Your task to perform on an android device: search for starred emails in the gmail app Image 0: 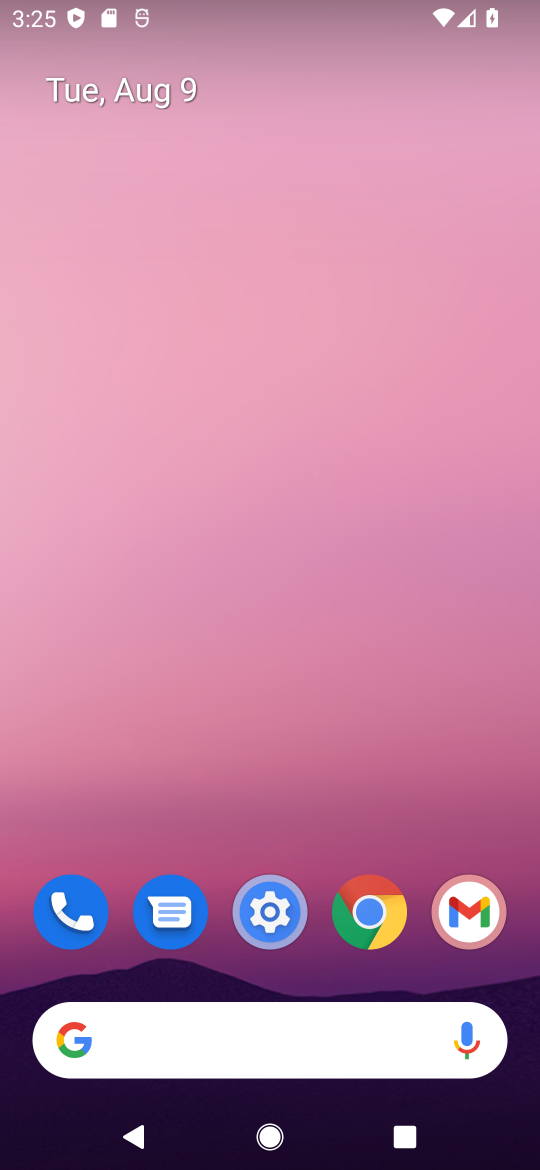
Step 0: click (470, 908)
Your task to perform on an android device: search for starred emails in the gmail app Image 1: 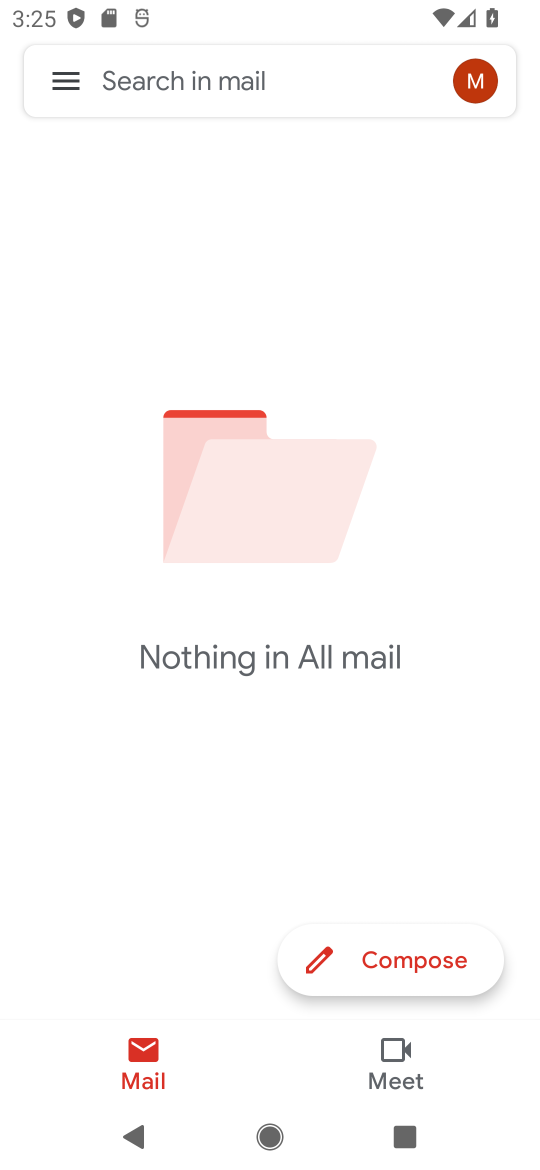
Step 1: click (62, 68)
Your task to perform on an android device: search for starred emails in the gmail app Image 2: 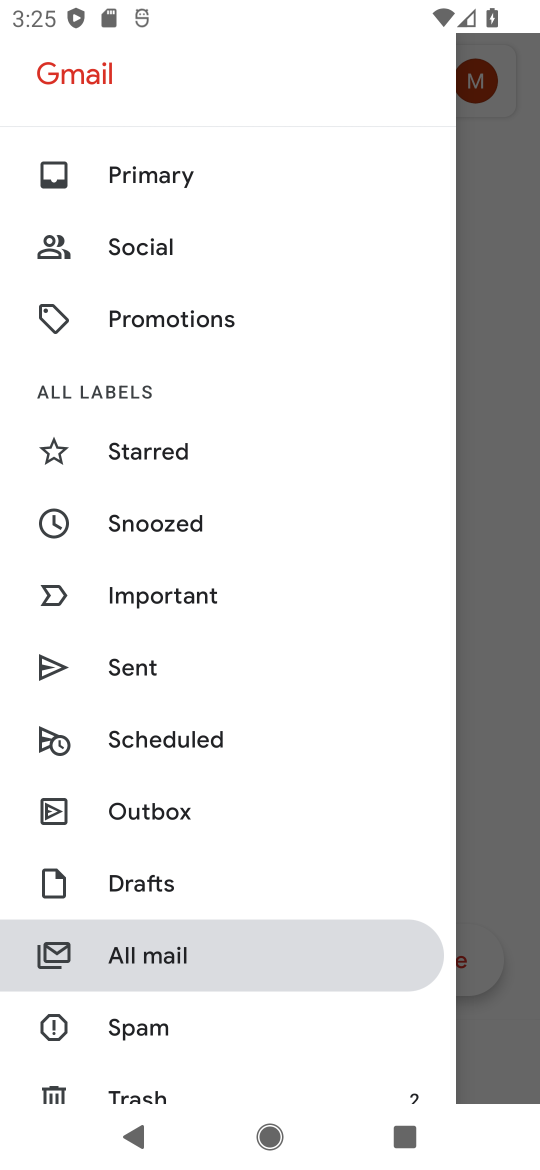
Step 2: click (143, 444)
Your task to perform on an android device: search for starred emails in the gmail app Image 3: 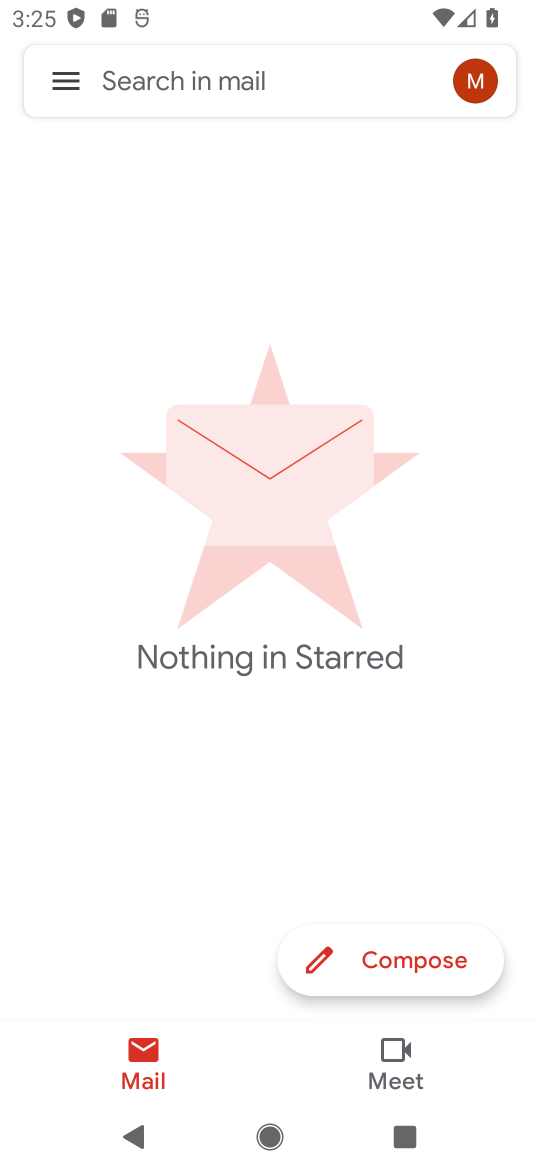
Step 3: task complete